Your task to perform on an android device: find photos in the google photos app Image 0: 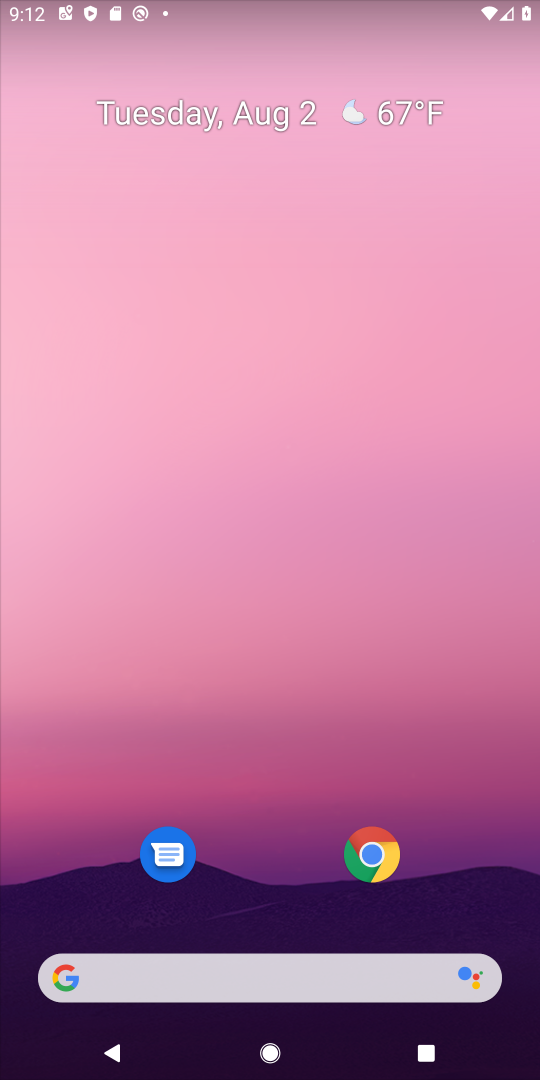
Step 0: drag from (293, 918) to (212, 13)
Your task to perform on an android device: find photos in the google photos app Image 1: 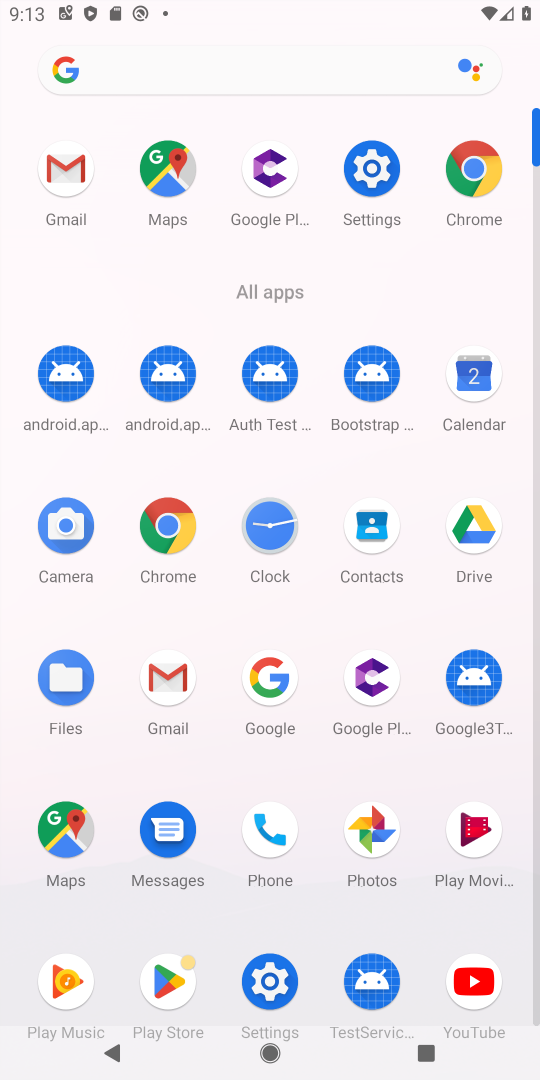
Step 1: click (395, 843)
Your task to perform on an android device: find photos in the google photos app Image 2: 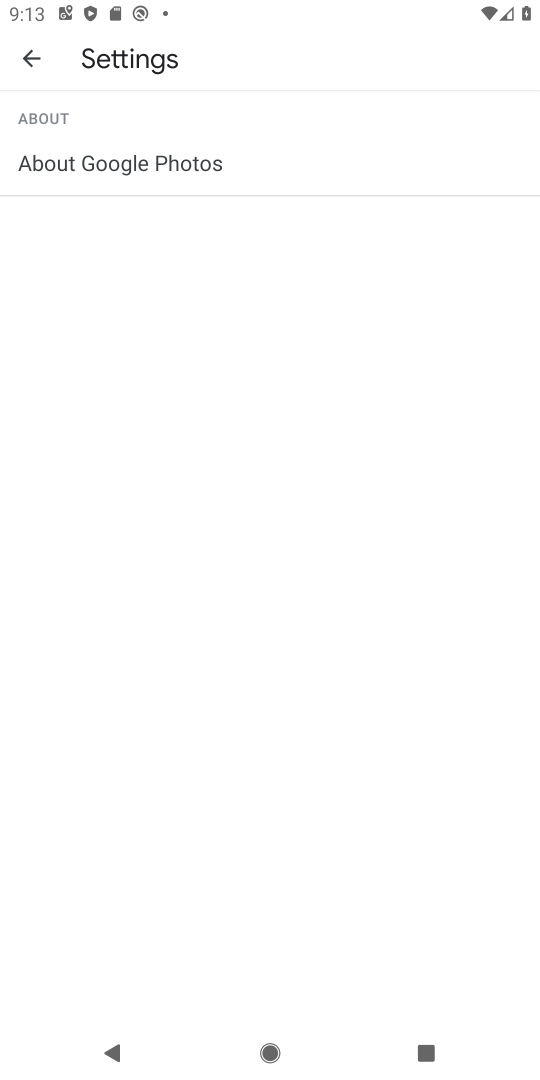
Step 2: click (21, 82)
Your task to perform on an android device: find photos in the google photos app Image 3: 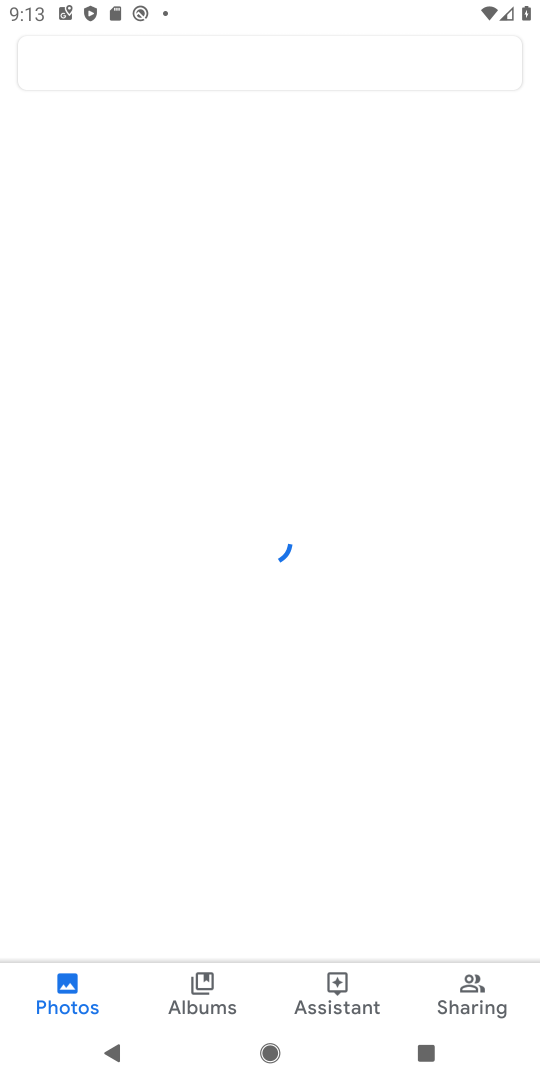
Step 3: task complete